Your task to perform on an android device: open a bookmark in the chrome app Image 0: 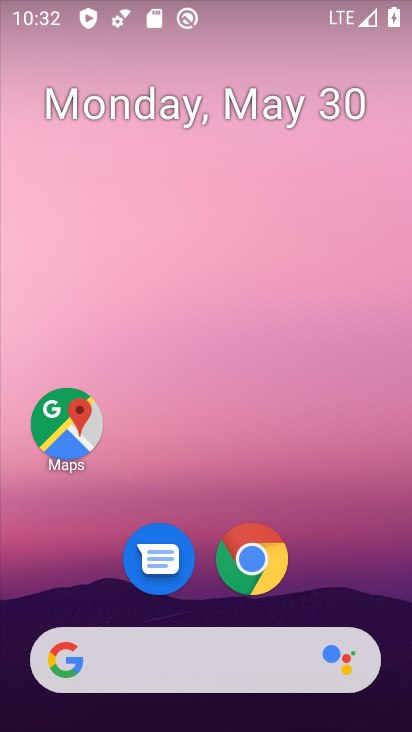
Step 0: click (258, 547)
Your task to perform on an android device: open a bookmark in the chrome app Image 1: 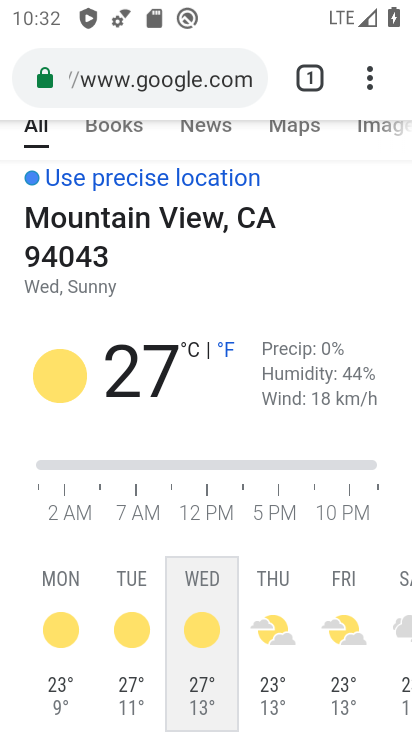
Step 1: click (378, 88)
Your task to perform on an android device: open a bookmark in the chrome app Image 2: 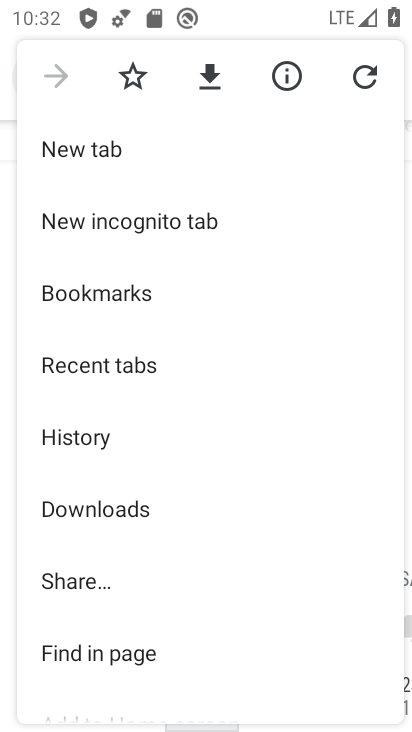
Step 2: click (237, 293)
Your task to perform on an android device: open a bookmark in the chrome app Image 3: 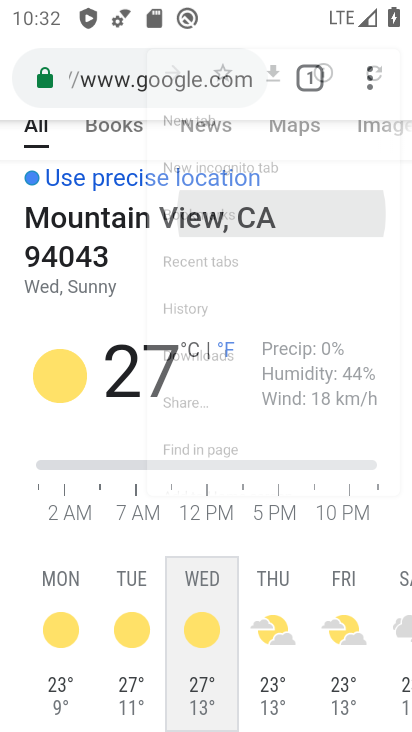
Step 3: click (237, 293)
Your task to perform on an android device: open a bookmark in the chrome app Image 4: 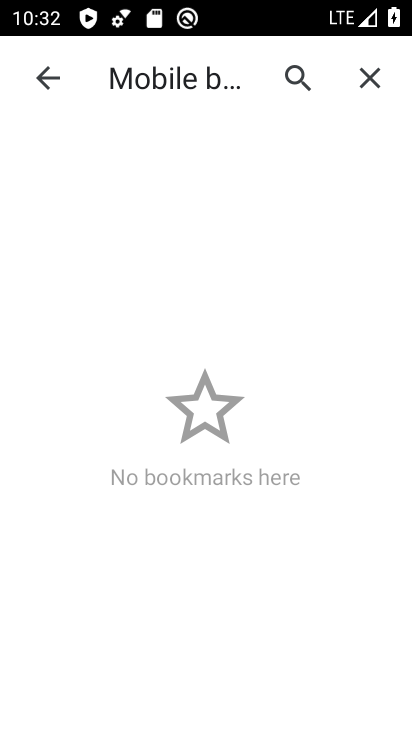
Step 4: task complete